Your task to perform on an android device: change the clock display to show seconds Image 0: 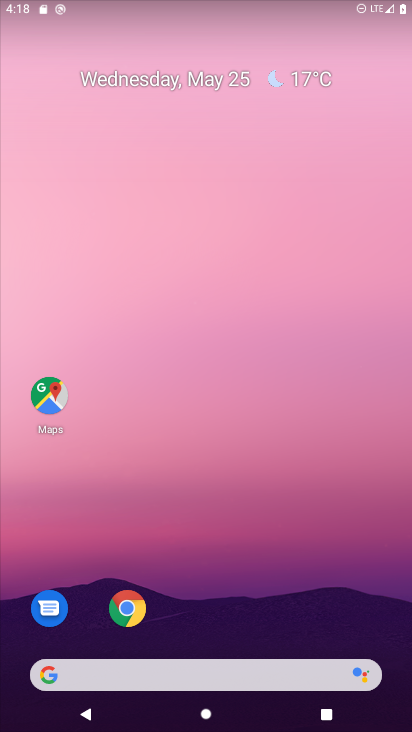
Step 0: drag from (368, 626) to (284, 131)
Your task to perform on an android device: change the clock display to show seconds Image 1: 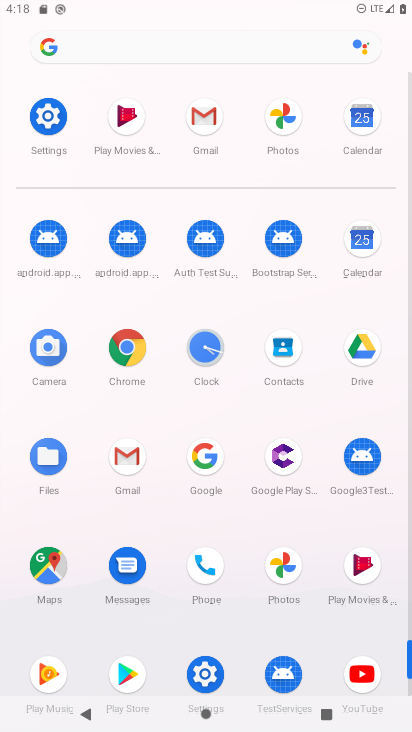
Step 1: click (202, 345)
Your task to perform on an android device: change the clock display to show seconds Image 2: 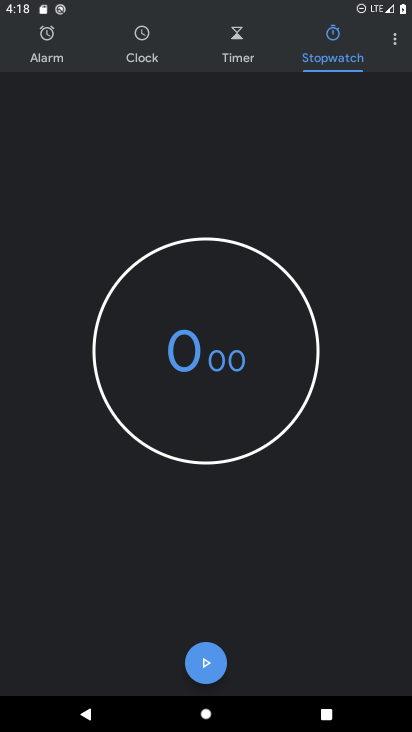
Step 2: click (393, 40)
Your task to perform on an android device: change the clock display to show seconds Image 3: 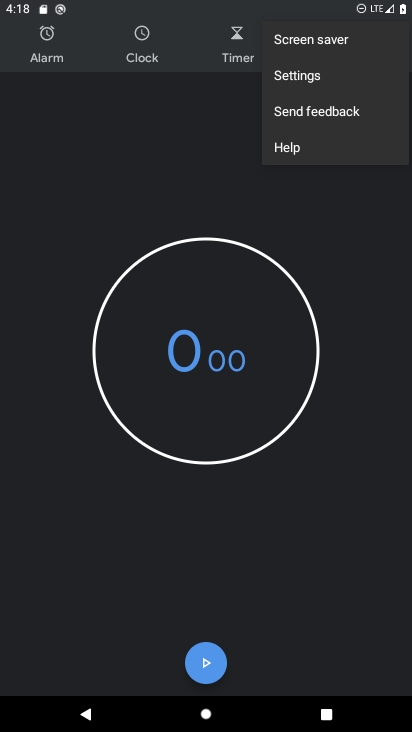
Step 3: click (300, 69)
Your task to perform on an android device: change the clock display to show seconds Image 4: 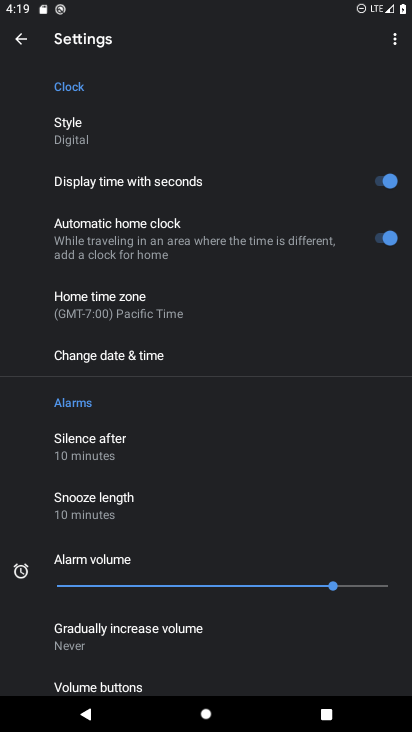
Step 4: task complete